Your task to perform on an android device: all mails in gmail Image 0: 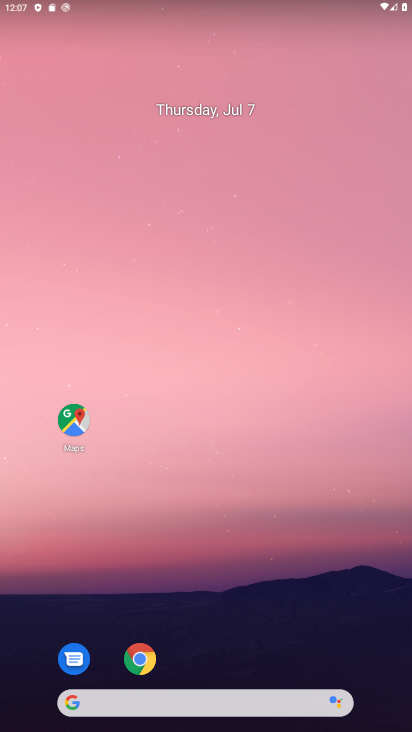
Step 0: drag from (219, 658) to (239, 10)
Your task to perform on an android device: all mails in gmail Image 1: 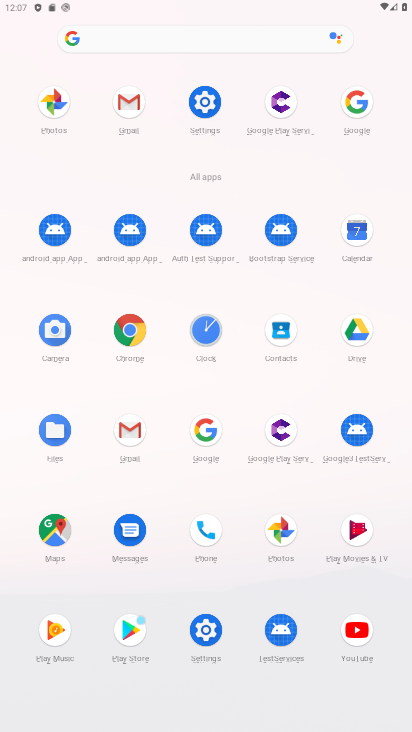
Step 1: click (128, 98)
Your task to perform on an android device: all mails in gmail Image 2: 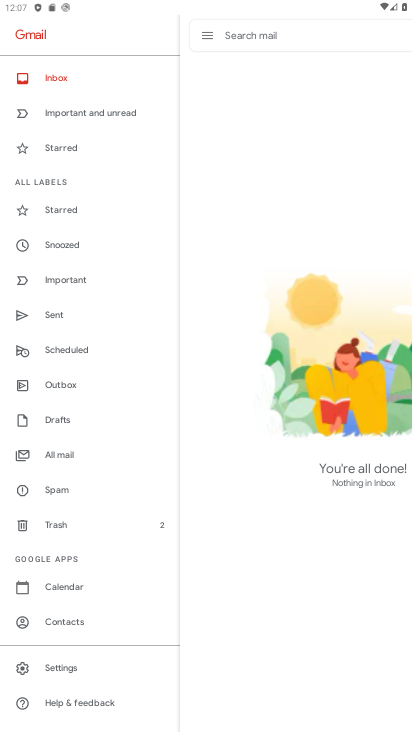
Step 2: click (67, 458)
Your task to perform on an android device: all mails in gmail Image 3: 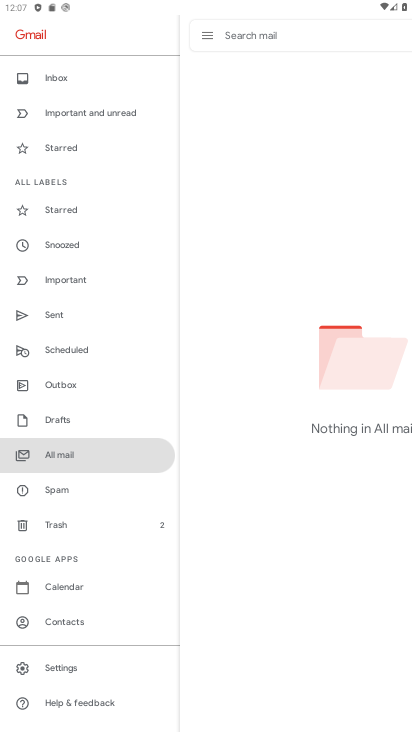
Step 3: click (299, 14)
Your task to perform on an android device: all mails in gmail Image 4: 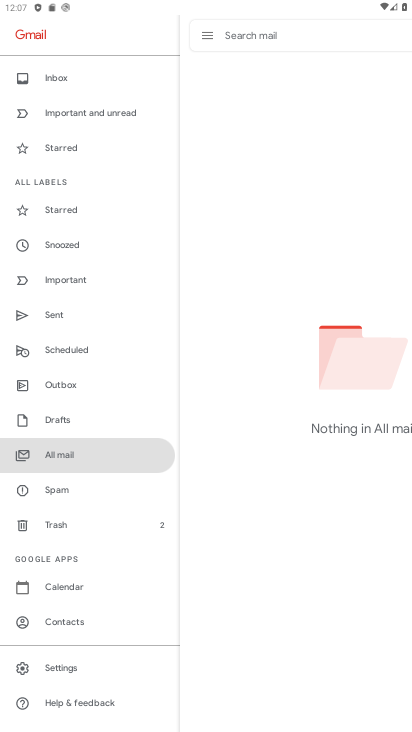
Step 4: task complete